Your task to perform on an android device: Go to display settings Image 0: 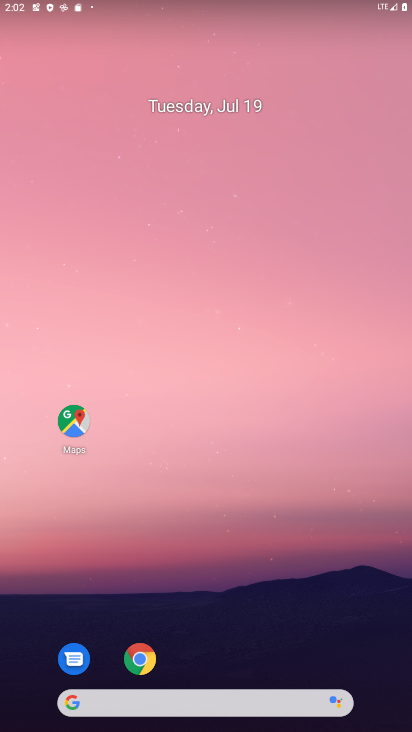
Step 0: drag from (291, 678) to (284, 98)
Your task to perform on an android device: Go to display settings Image 1: 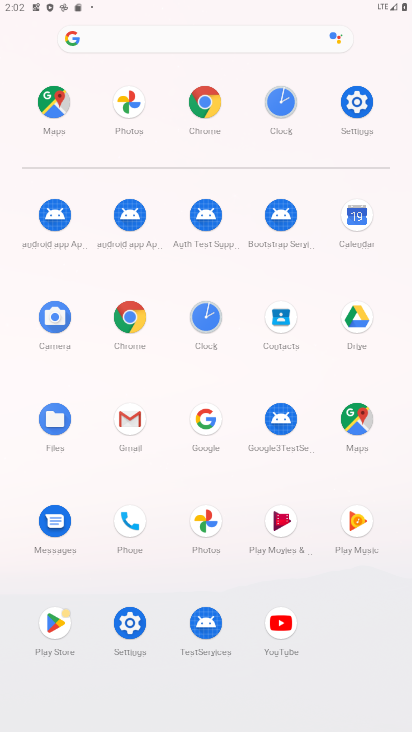
Step 1: click (347, 103)
Your task to perform on an android device: Go to display settings Image 2: 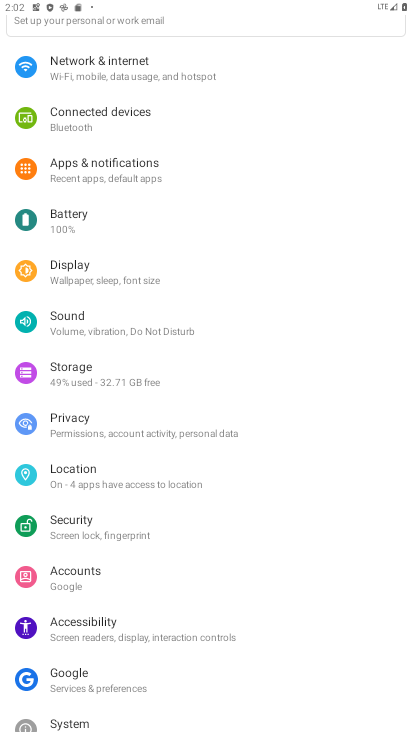
Step 2: click (66, 284)
Your task to perform on an android device: Go to display settings Image 3: 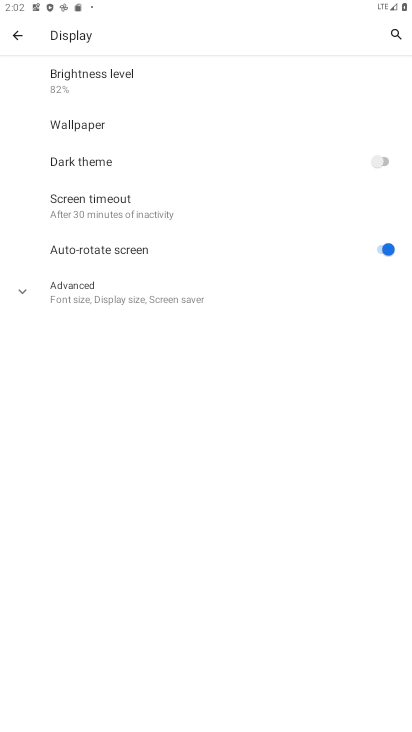
Step 3: task complete